Your task to perform on an android device: manage bookmarks in the chrome app Image 0: 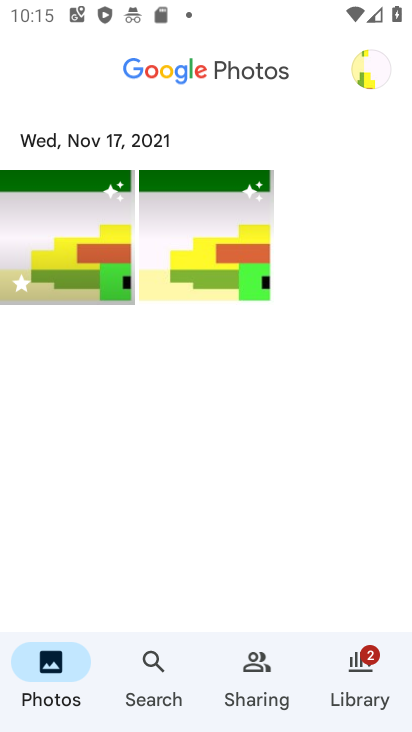
Step 0: press home button
Your task to perform on an android device: manage bookmarks in the chrome app Image 1: 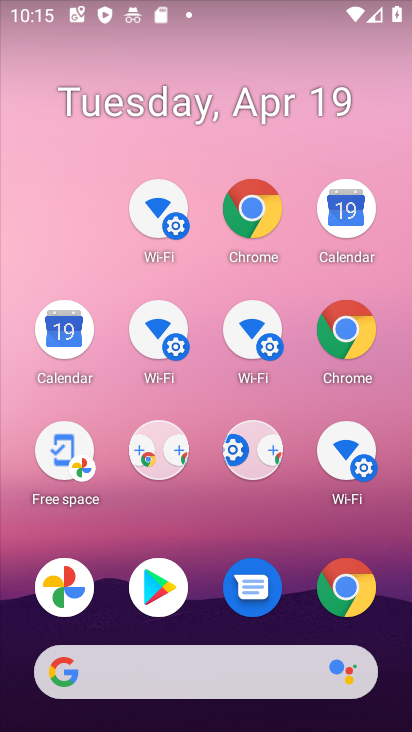
Step 1: click (352, 571)
Your task to perform on an android device: manage bookmarks in the chrome app Image 2: 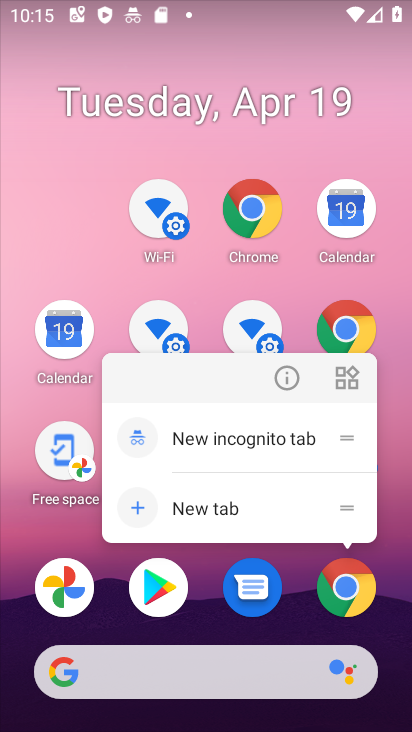
Step 2: click (349, 581)
Your task to perform on an android device: manage bookmarks in the chrome app Image 3: 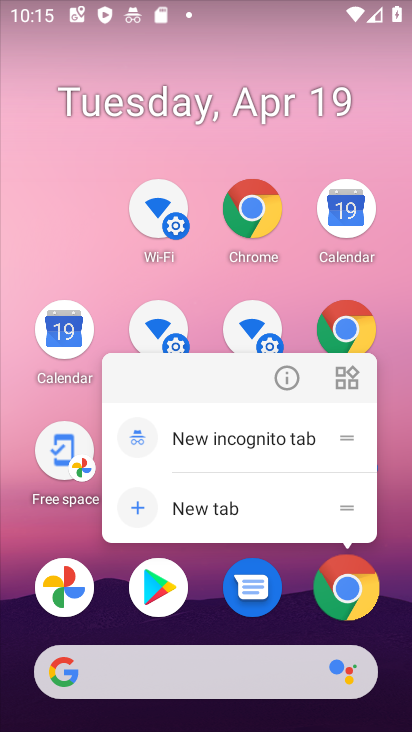
Step 3: click (349, 581)
Your task to perform on an android device: manage bookmarks in the chrome app Image 4: 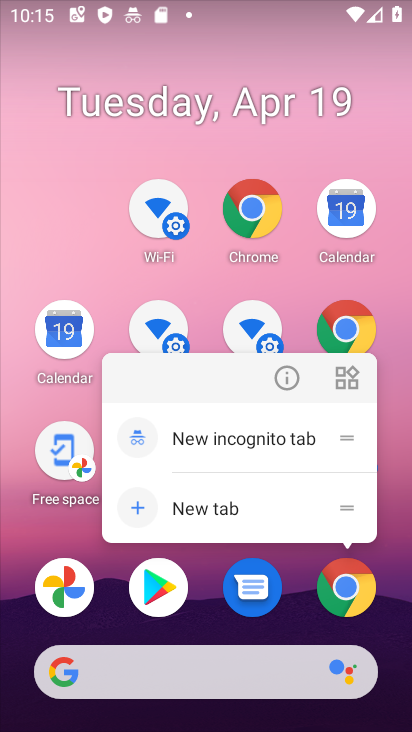
Step 4: click (349, 581)
Your task to perform on an android device: manage bookmarks in the chrome app Image 5: 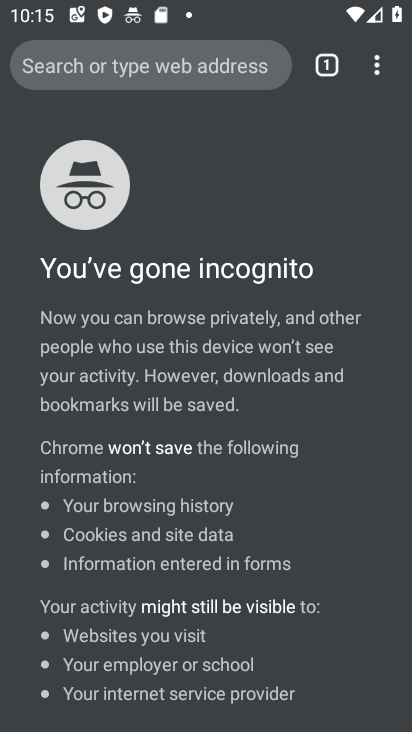
Step 5: drag from (377, 63) to (171, 580)
Your task to perform on an android device: manage bookmarks in the chrome app Image 6: 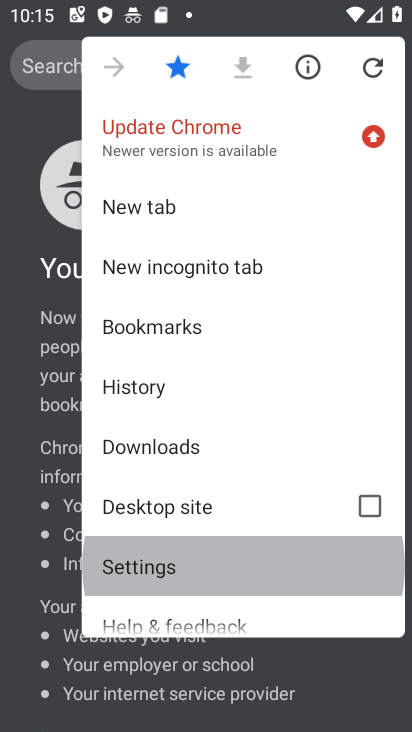
Step 6: click (151, 590)
Your task to perform on an android device: manage bookmarks in the chrome app Image 7: 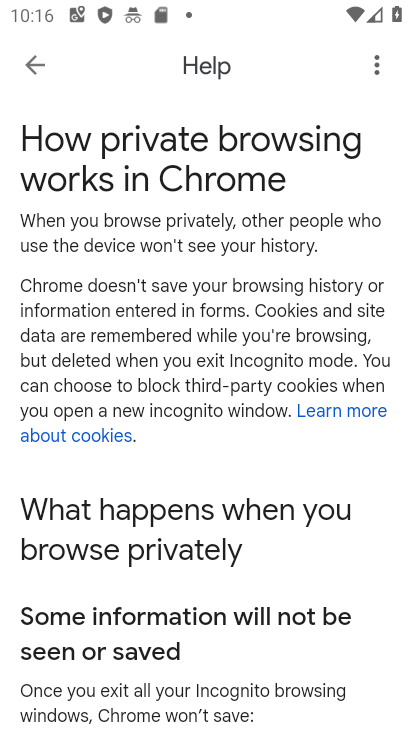
Step 7: click (32, 62)
Your task to perform on an android device: manage bookmarks in the chrome app Image 8: 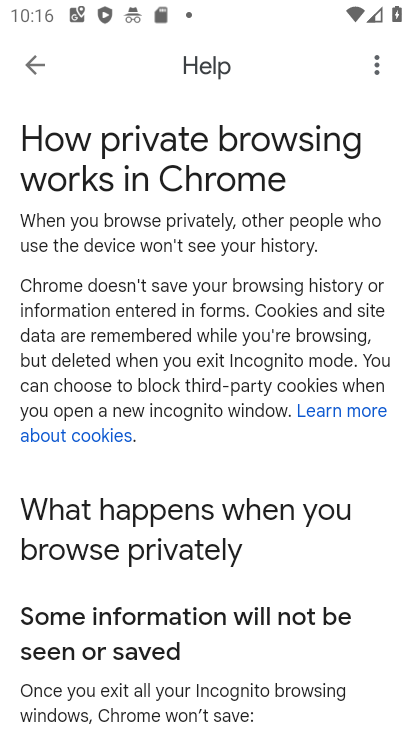
Step 8: press back button
Your task to perform on an android device: manage bookmarks in the chrome app Image 9: 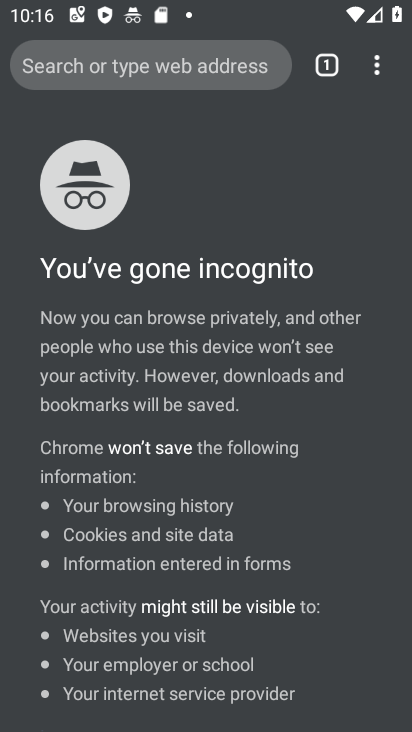
Step 9: drag from (374, 58) to (153, 306)
Your task to perform on an android device: manage bookmarks in the chrome app Image 10: 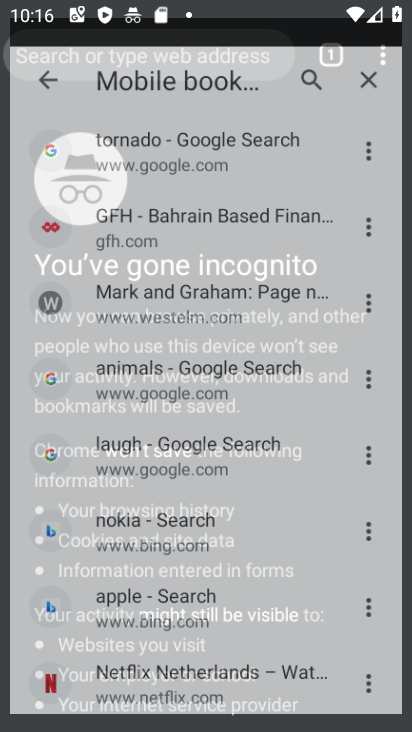
Step 10: click (161, 312)
Your task to perform on an android device: manage bookmarks in the chrome app Image 11: 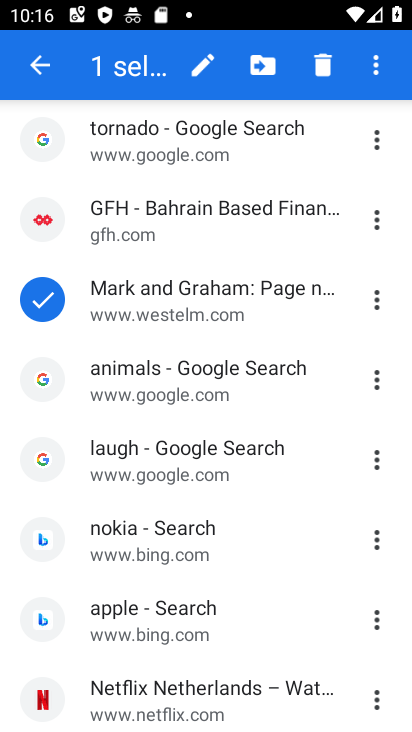
Step 11: click (326, 68)
Your task to perform on an android device: manage bookmarks in the chrome app Image 12: 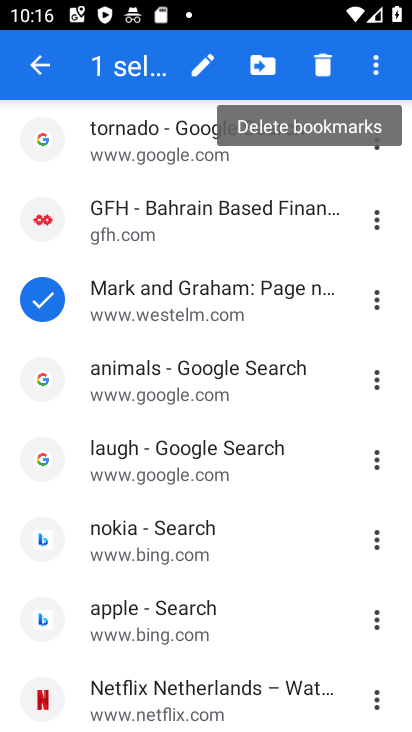
Step 12: click (328, 130)
Your task to perform on an android device: manage bookmarks in the chrome app Image 13: 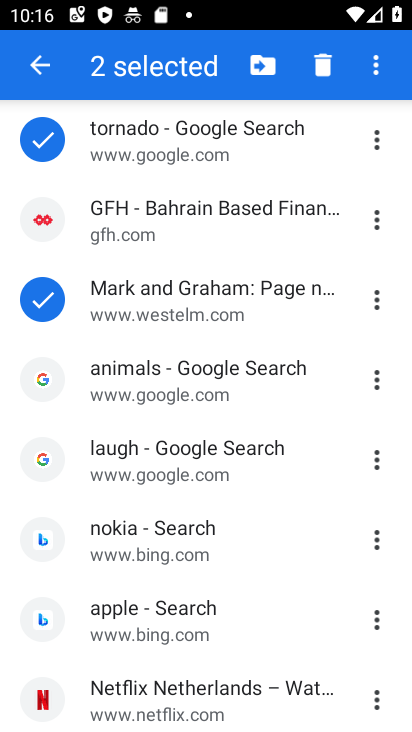
Step 13: click (317, 62)
Your task to perform on an android device: manage bookmarks in the chrome app Image 14: 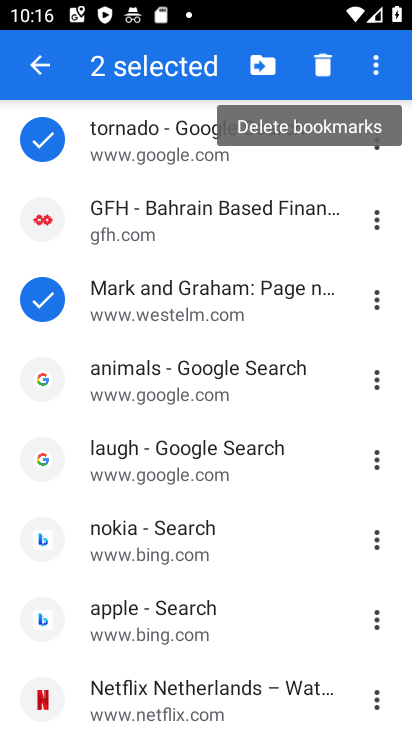
Step 14: click (317, 64)
Your task to perform on an android device: manage bookmarks in the chrome app Image 15: 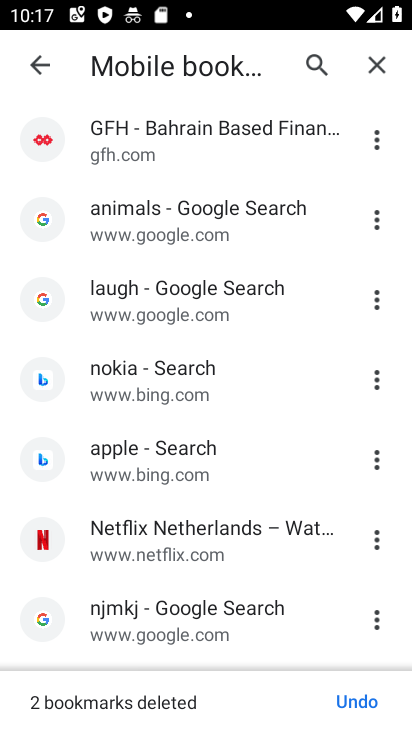
Step 15: task complete